Your task to perform on an android device: check out phone information Image 0: 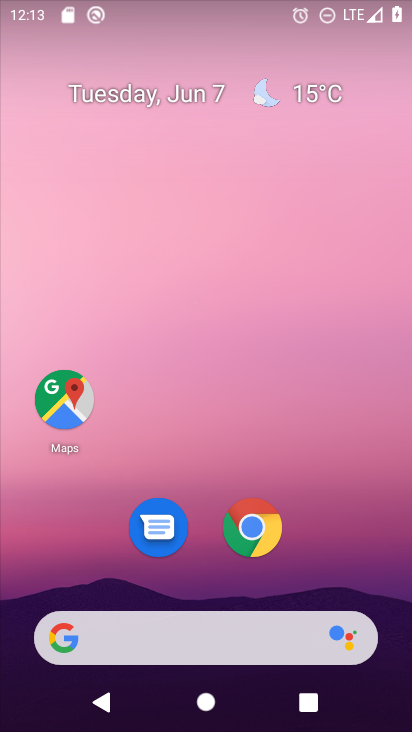
Step 0: drag from (336, 562) to (344, 57)
Your task to perform on an android device: check out phone information Image 1: 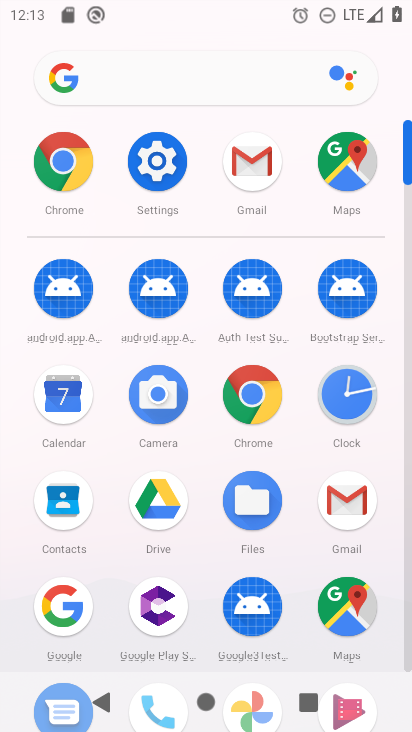
Step 1: drag from (204, 552) to (193, 280)
Your task to perform on an android device: check out phone information Image 2: 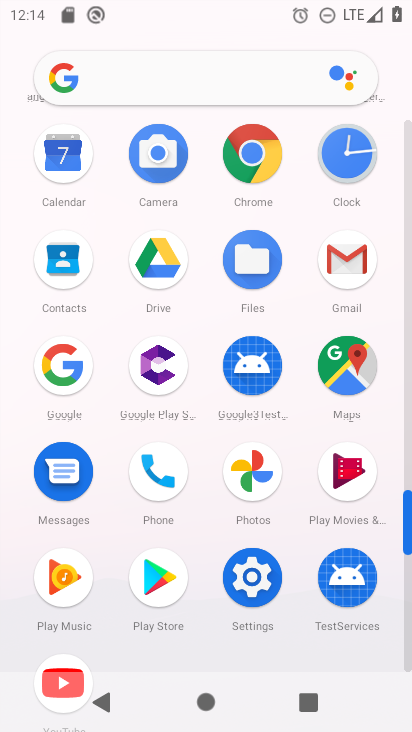
Step 2: drag from (201, 526) to (198, 313)
Your task to perform on an android device: check out phone information Image 3: 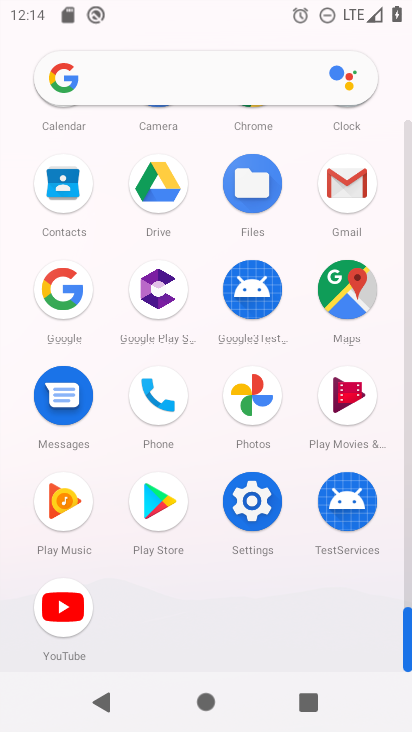
Step 3: click (148, 408)
Your task to perform on an android device: check out phone information Image 4: 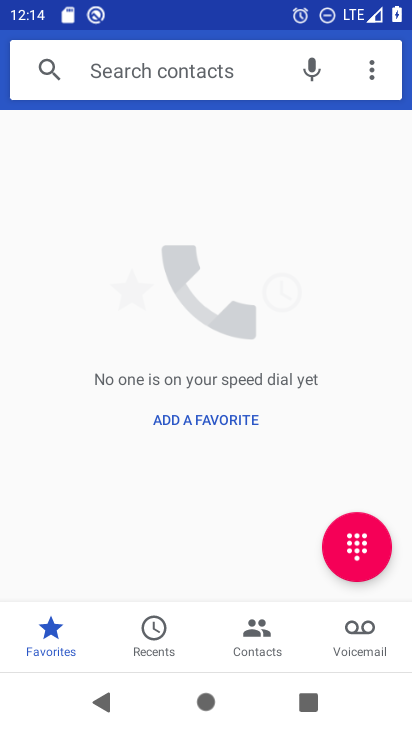
Step 4: task complete